Your task to perform on an android device: delete browsing data in the chrome app Image 0: 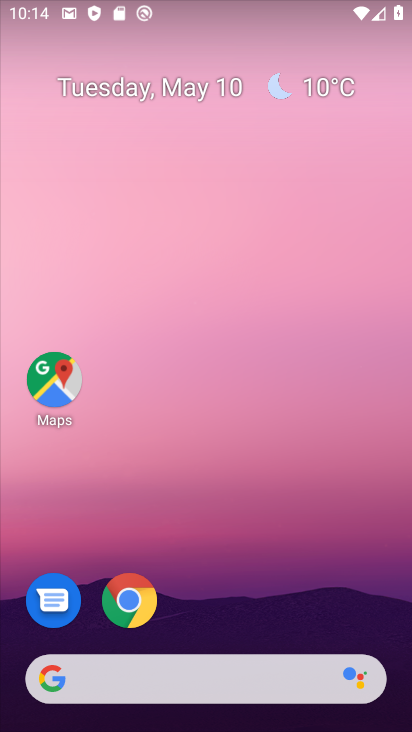
Step 0: click (138, 598)
Your task to perform on an android device: delete browsing data in the chrome app Image 1: 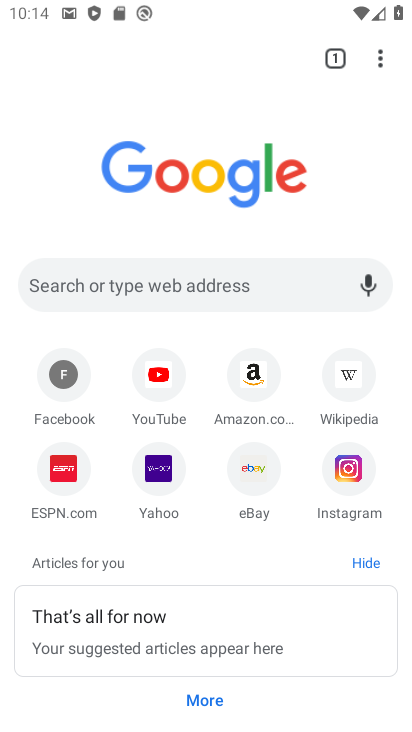
Step 1: click (387, 61)
Your task to perform on an android device: delete browsing data in the chrome app Image 2: 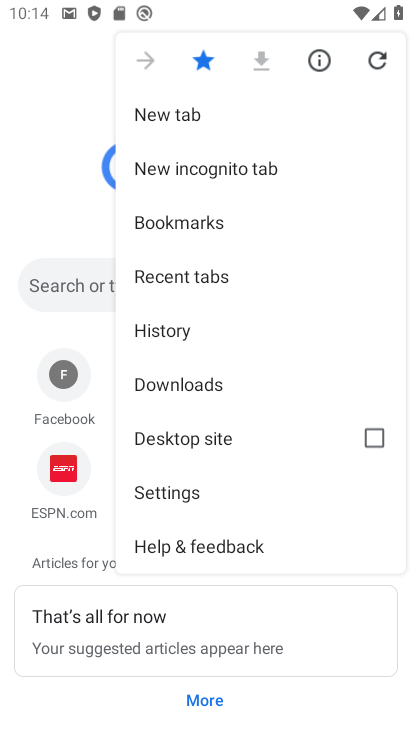
Step 2: click (207, 332)
Your task to perform on an android device: delete browsing data in the chrome app Image 3: 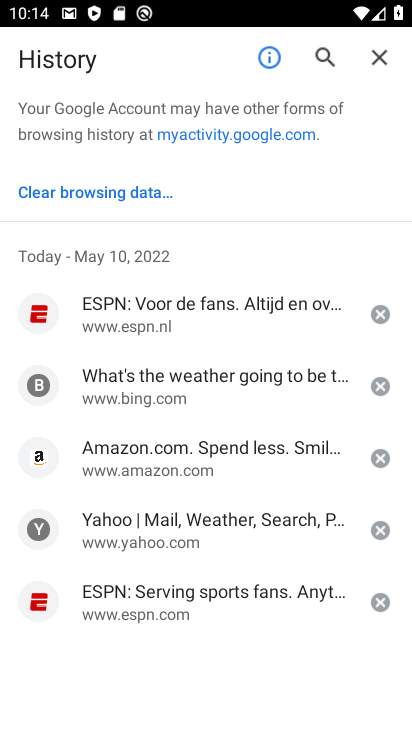
Step 3: click (116, 182)
Your task to perform on an android device: delete browsing data in the chrome app Image 4: 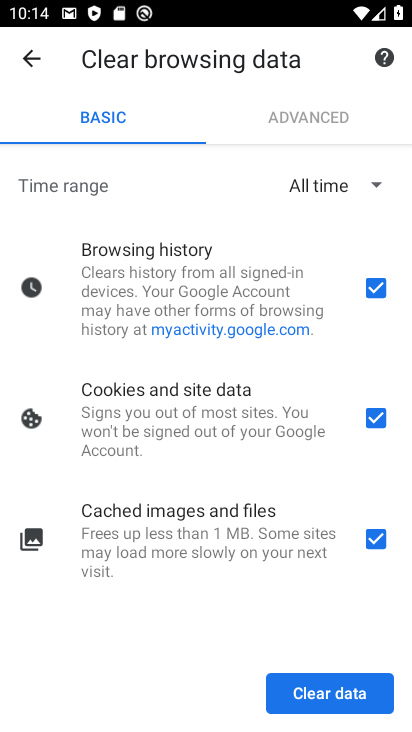
Step 4: click (337, 693)
Your task to perform on an android device: delete browsing data in the chrome app Image 5: 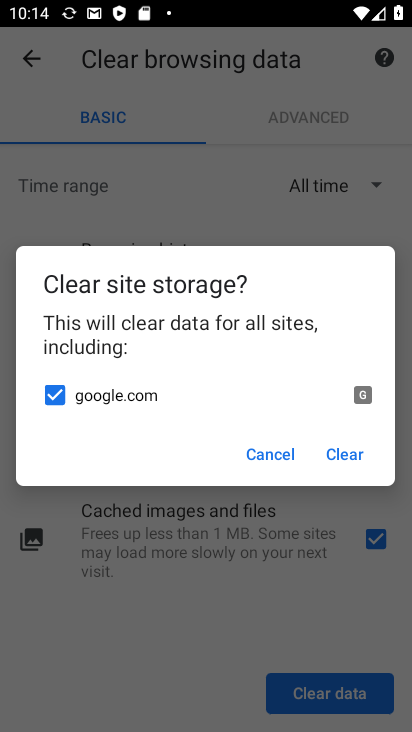
Step 5: click (352, 454)
Your task to perform on an android device: delete browsing data in the chrome app Image 6: 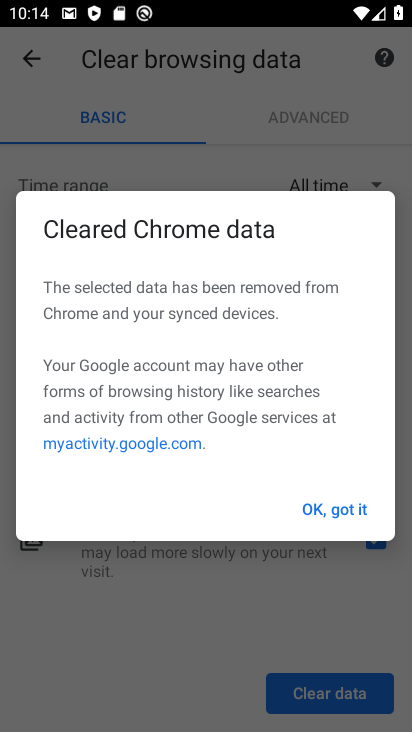
Step 6: click (338, 507)
Your task to perform on an android device: delete browsing data in the chrome app Image 7: 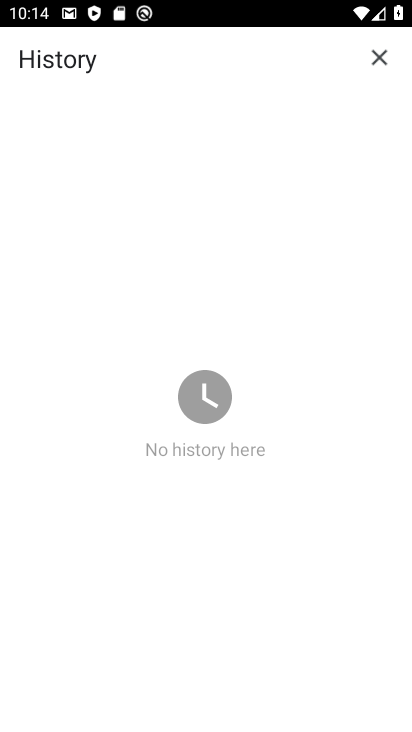
Step 7: task complete